Your task to perform on an android device: Search for pizza restaurants on Maps Image 0: 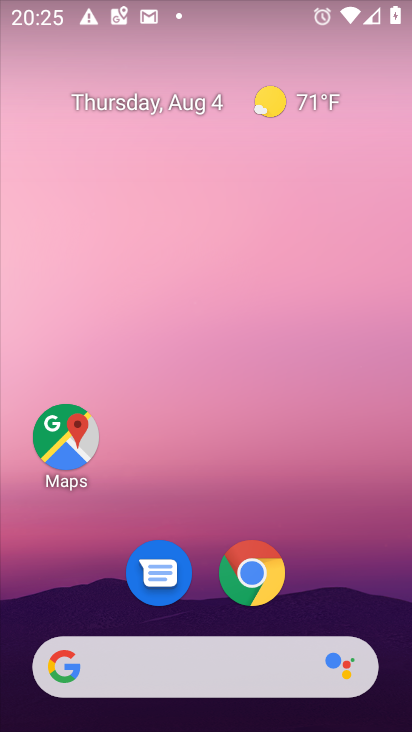
Step 0: click (60, 439)
Your task to perform on an android device: Search for pizza restaurants on Maps Image 1: 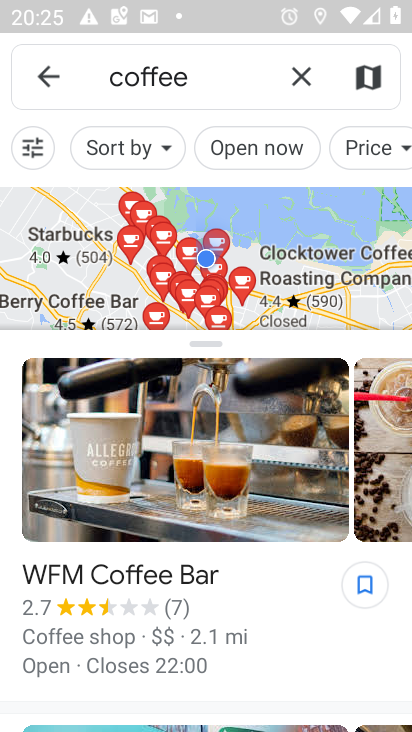
Step 1: click (308, 74)
Your task to perform on an android device: Search for pizza restaurants on Maps Image 2: 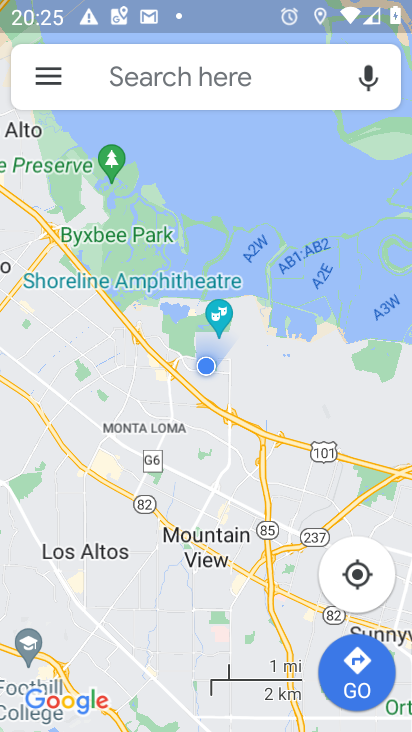
Step 2: click (238, 86)
Your task to perform on an android device: Search for pizza restaurants on Maps Image 3: 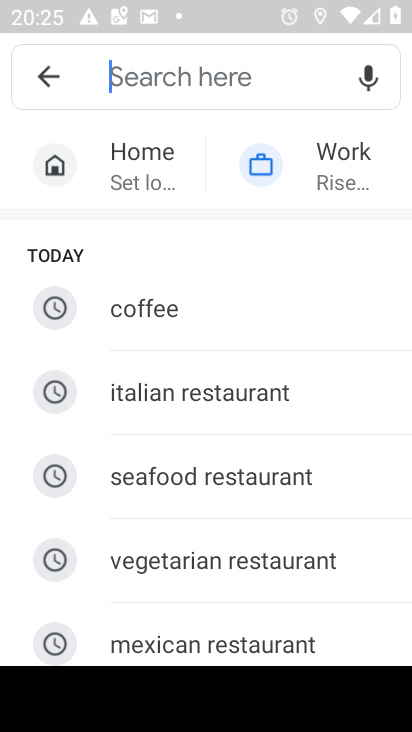
Step 3: type "pizza restaurants"
Your task to perform on an android device: Search for pizza restaurants on Maps Image 4: 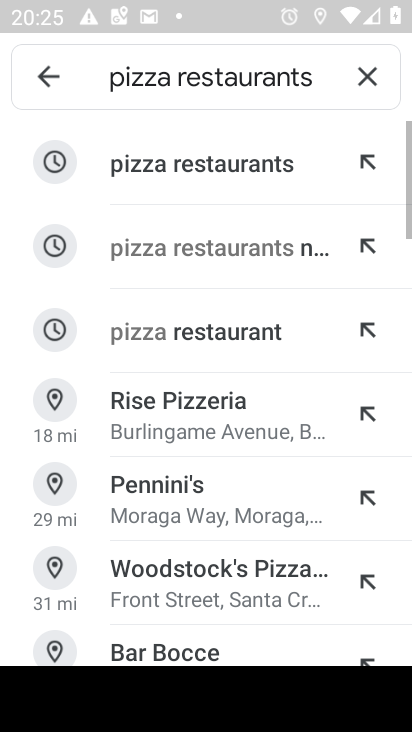
Step 4: click (225, 169)
Your task to perform on an android device: Search for pizza restaurants on Maps Image 5: 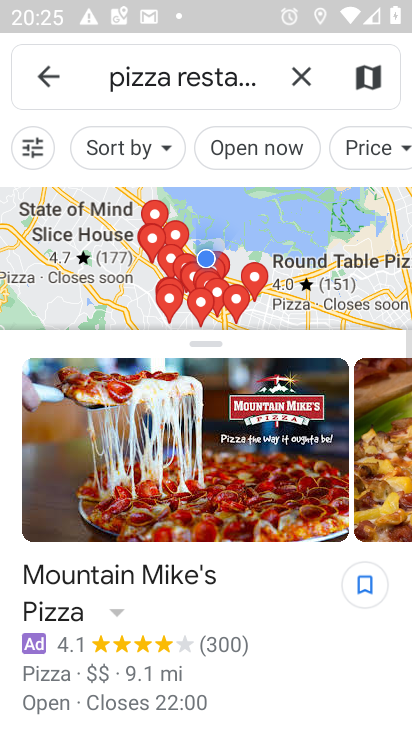
Step 5: task complete